Your task to perform on an android device: change notifications settings Image 0: 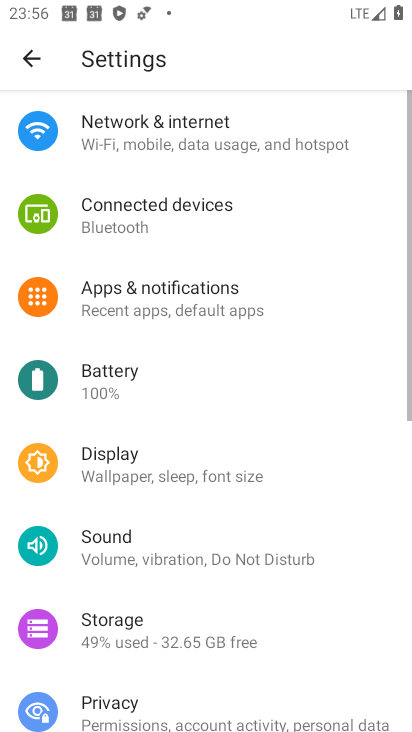
Step 0: click (182, 287)
Your task to perform on an android device: change notifications settings Image 1: 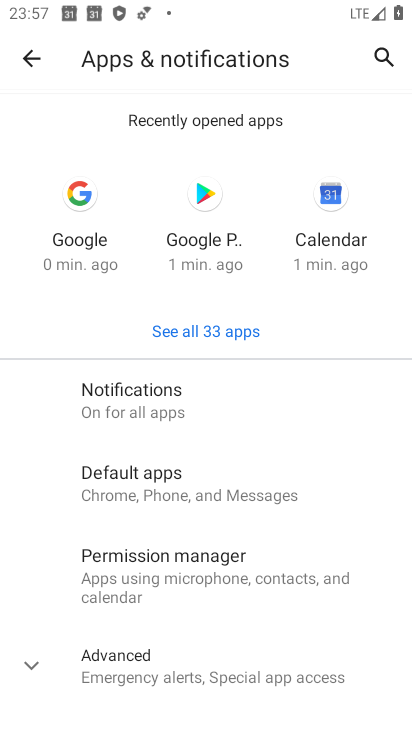
Step 1: click (129, 411)
Your task to perform on an android device: change notifications settings Image 2: 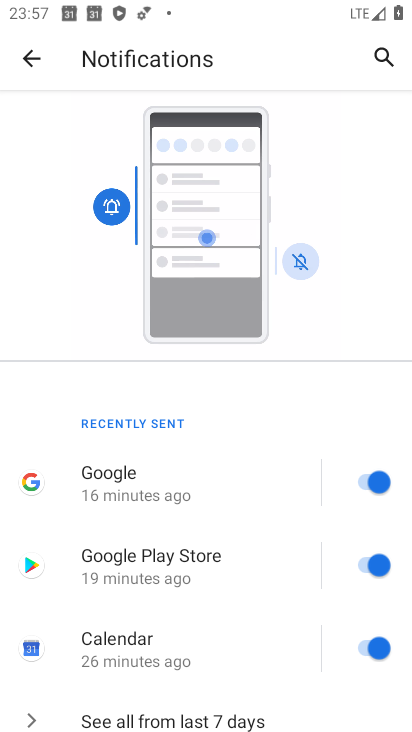
Step 2: drag from (236, 709) to (242, 373)
Your task to perform on an android device: change notifications settings Image 3: 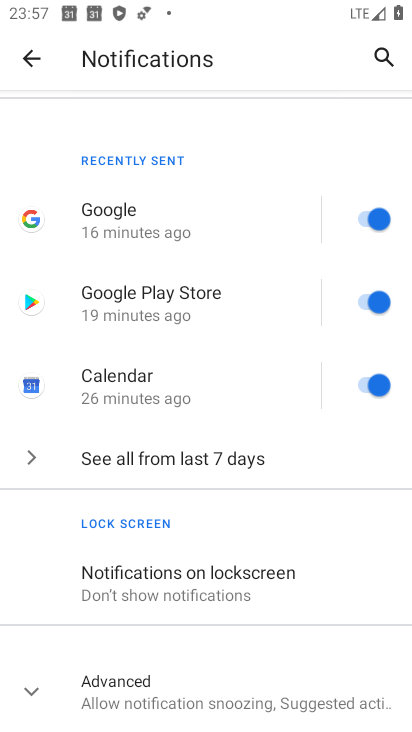
Step 3: click (132, 692)
Your task to perform on an android device: change notifications settings Image 4: 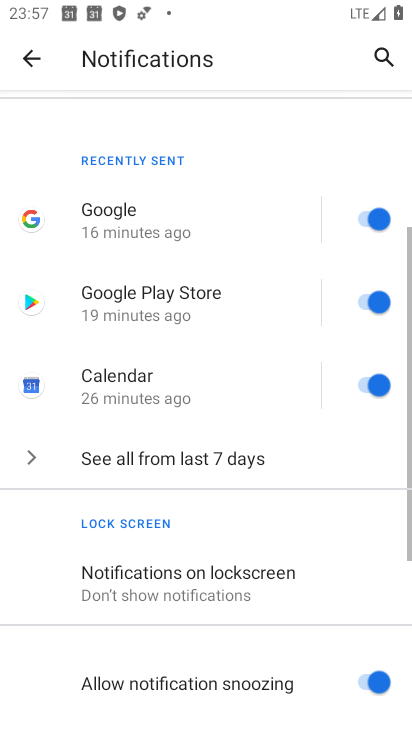
Step 4: click (362, 676)
Your task to perform on an android device: change notifications settings Image 5: 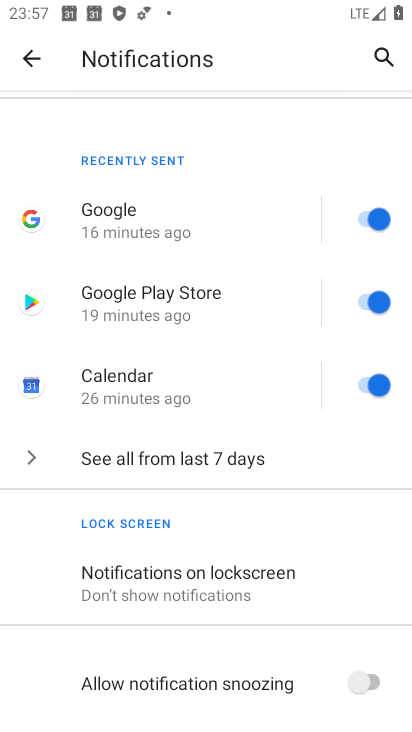
Step 5: task complete